Your task to perform on an android device: turn off data saver in the chrome app Image 0: 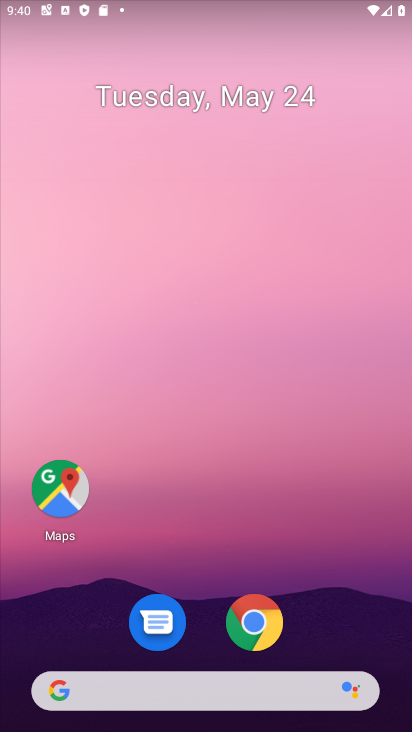
Step 0: press home button
Your task to perform on an android device: turn off data saver in the chrome app Image 1: 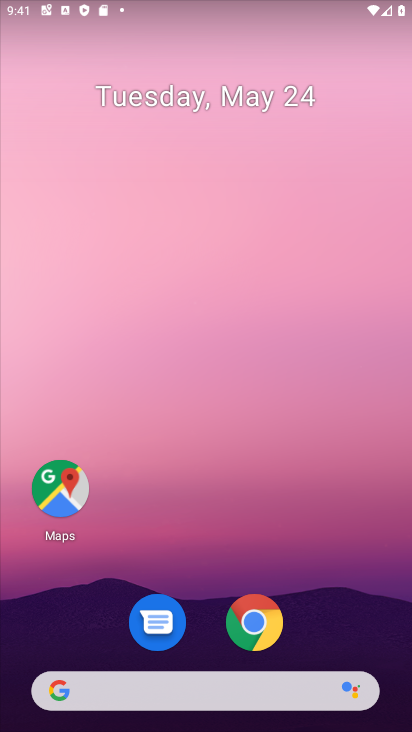
Step 1: drag from (298, 713) to (363, 305)
Your task to perform on an android device: turn off data saver in the chrome app Image 2: 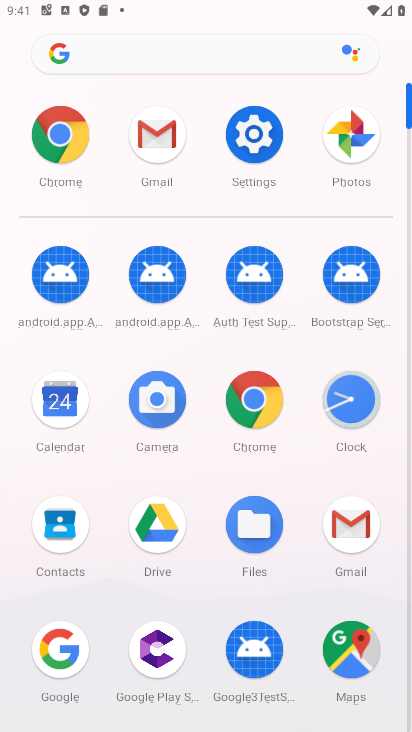
Step 2: click (74, 147)
Your task to perform on an android device: turn off data saver in the chrome app Image 3: 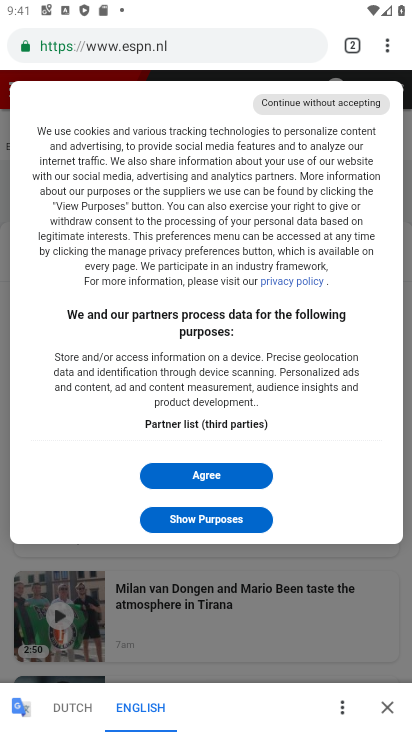
Step 3: click (383, 56)
Your task to perform on an android device: turn off data saver in the chrome app Image 4: 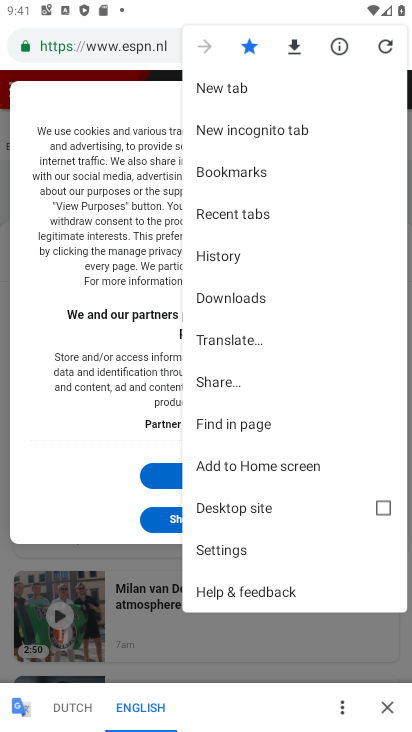
Step 4: click (211, 550)
Your task to perform on an android device: turn off data saver in the chrome app Image 5: 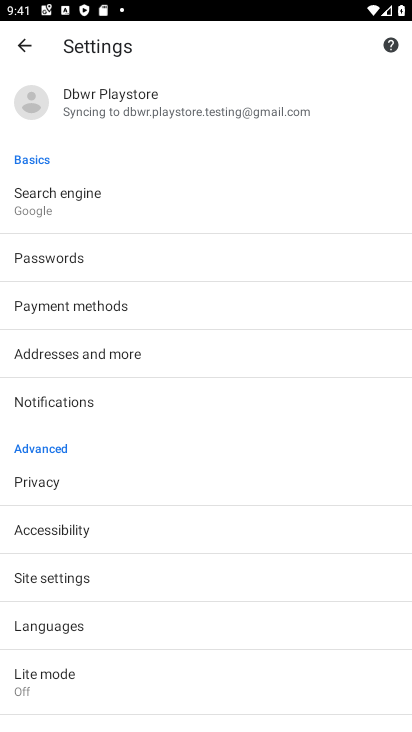
Step 5: click (55, 667)
Your task to perform on an android device: turn off data saver in the chrome app Image 6: 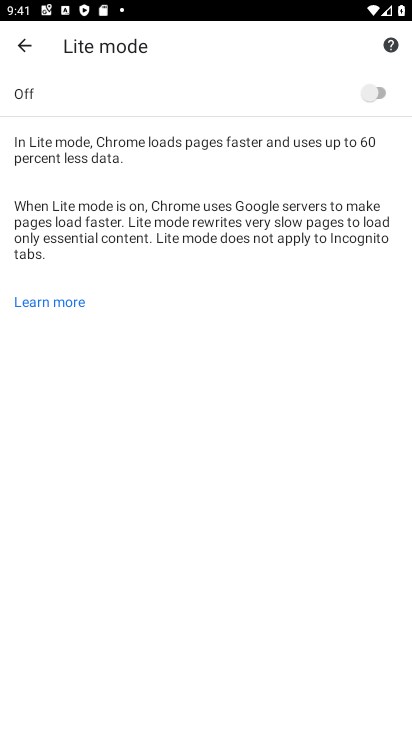
Step 6: click (374, 103)
Your task to perform on an android device: turn off data saver in the chrome app Image 7: 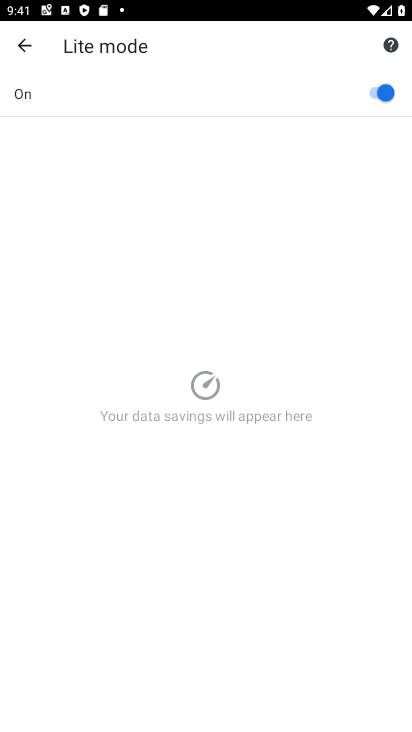
Step 7: click (374, 103)
Your task to perform on an android device: turn off data saver in the chrome app Image 8: 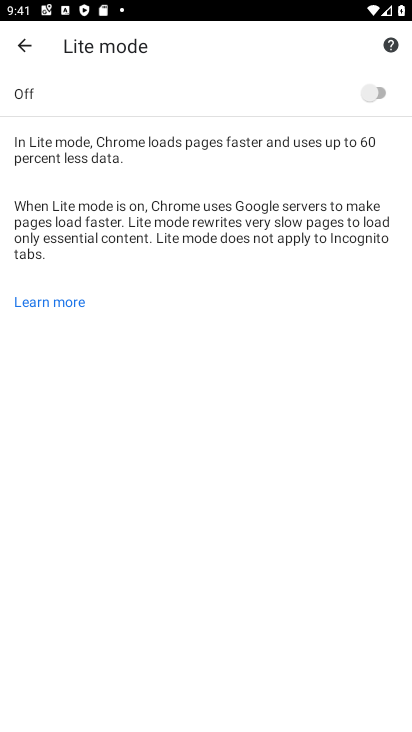
Step 8: task complete